Your task to perform on an android device: Search for Italian restaurants on Maps Image 0: 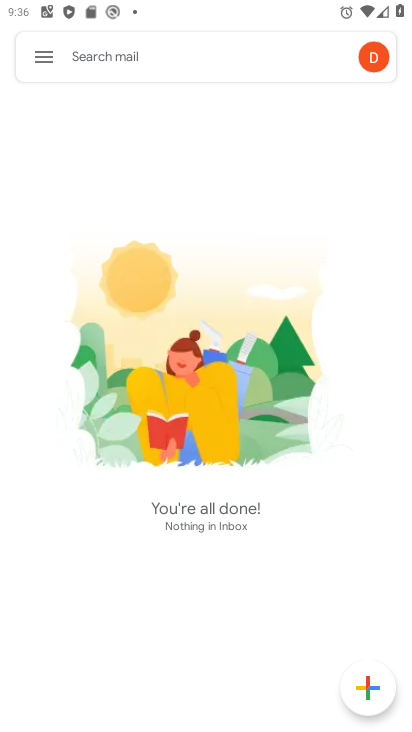
Step 0: press home button
Your task to perform on an android device: Search for Italian restaurants on Maps Image 1: 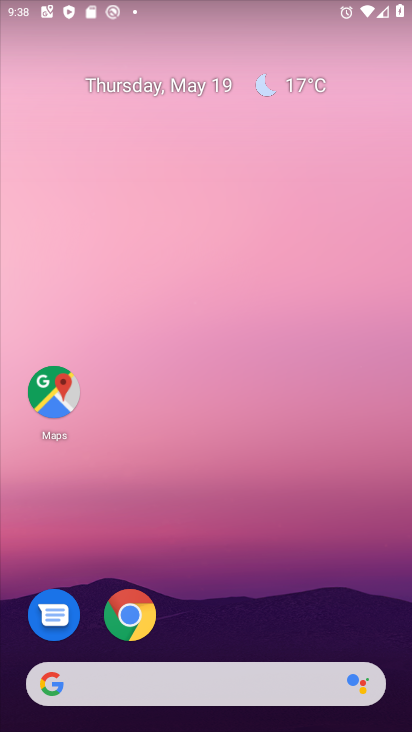
Step 1: click (62, 399)
Your task to perform on an android device: Search for Italian restaurants on Maps Image 2: 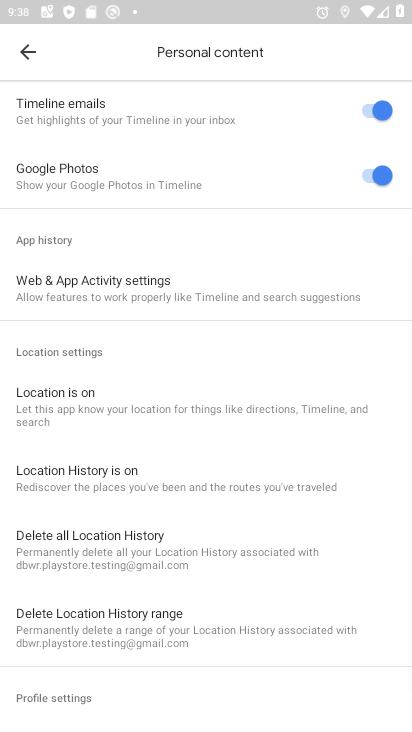
Step 2: click (36, 62)
Your task to perform on an android device: Search for Italian restaurants on Maps Image 3: 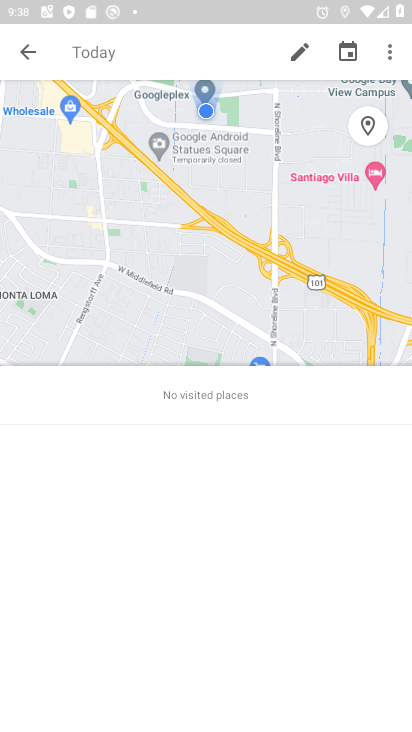
Step 3: click (25, 55)
Your task to perform on an android device: Search for Italian restaurants on Maps Image 4: 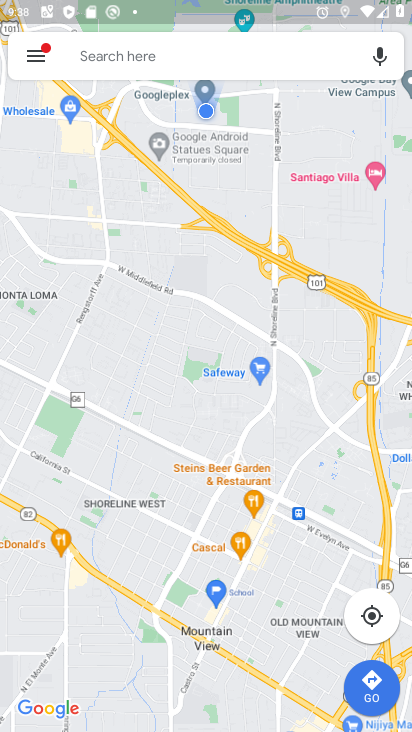
Step 4: click (195, 68)
Your task to perform on an android device: Search for Italian restaurants on Maps Image 5: 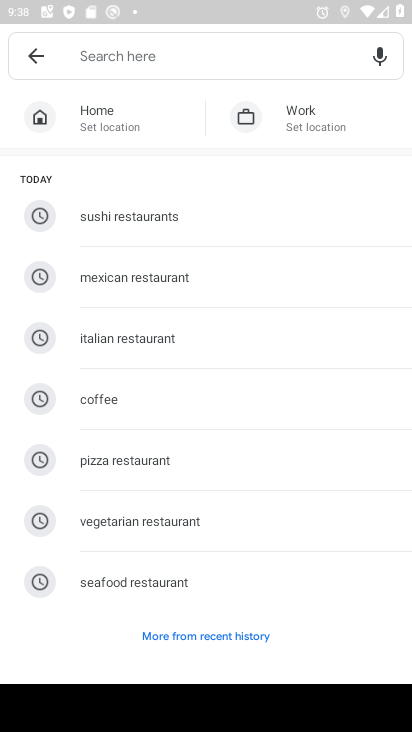
Step 5: type " Italian restaurants"
Your task to perform on an android device: Search for Italian restaurants on Maps Image 6: 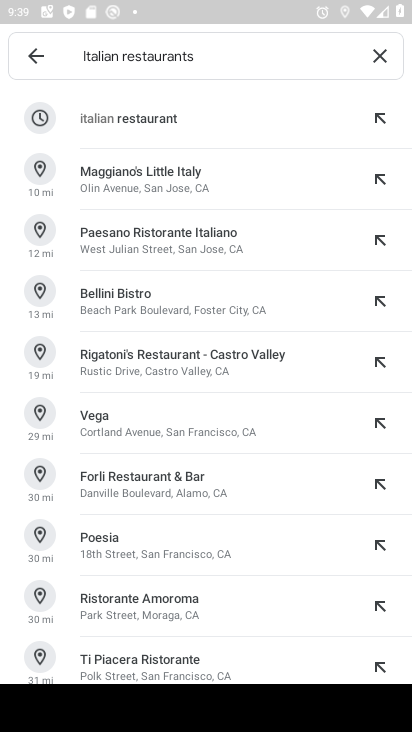
Step 6: click (102, 131)
Your task to perform on an android device: Search for Italian restaurants on Maps Image 7: 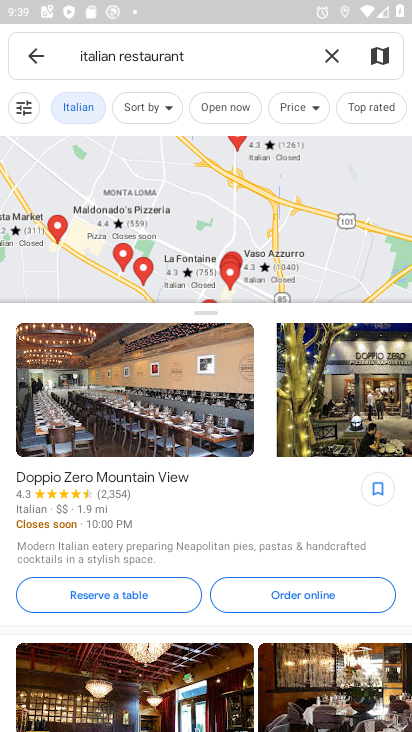
Step 7: task complete